Your task to perform on an android device: Open calendar and show me the second week of next month Image 0: 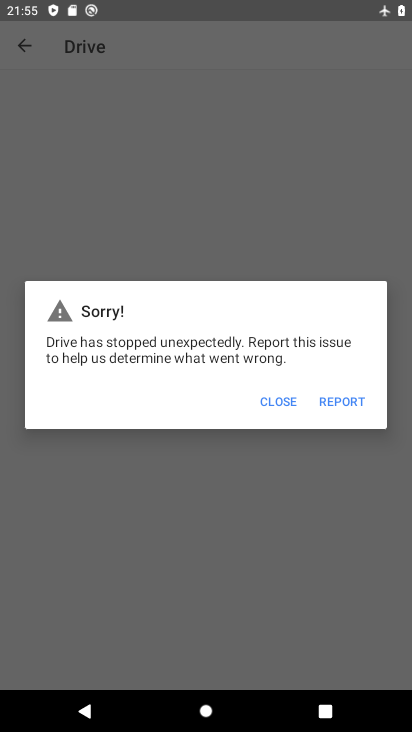
Step 0: press home button
Your task to perform on an android device: Open calendar and show me the second week of next month Image 1: 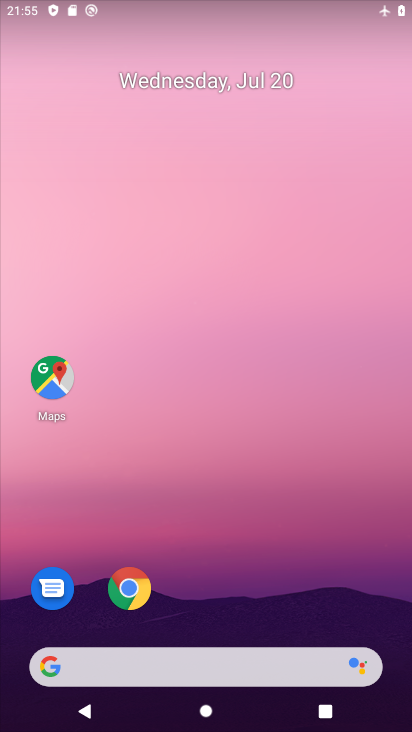
Step 1: drag from (377, 611) to (330, 182)
Your task to perform on an android device: Open calendar and show me the second week of next month Image 2: 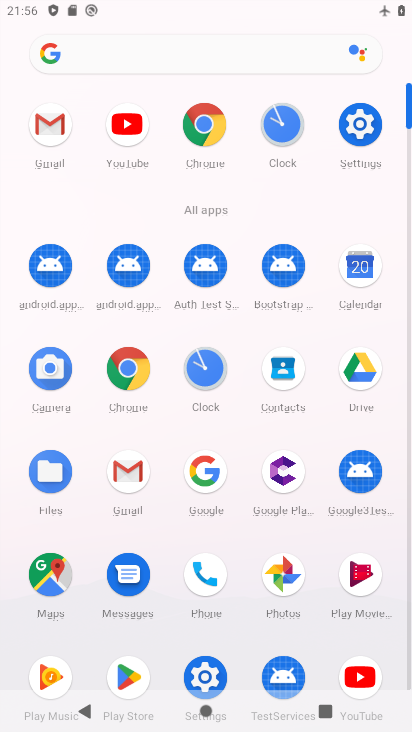
Step 2: click (359, 269)
Your task to perform on an android device: Open calendar and show me the second week of next month Image 3: 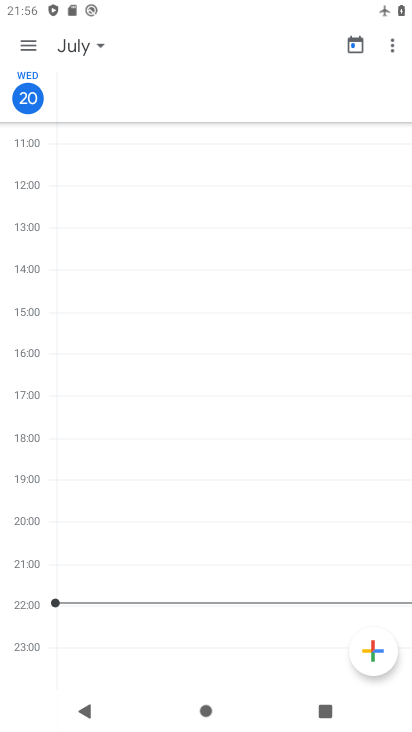
Step 3: click (28, 44)
Your task to perform on an android device: Open calendar and show me the second week of next month Image 4: 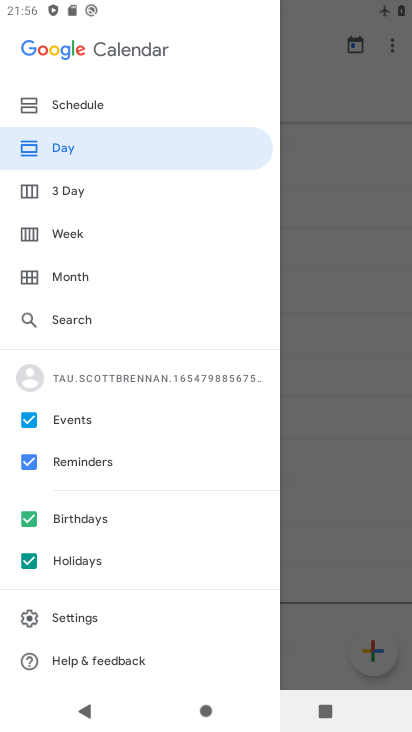
Step 4: click (64, 233)
Your task to perform on an android device: Open calendar and show me the second week of next month Image 5: 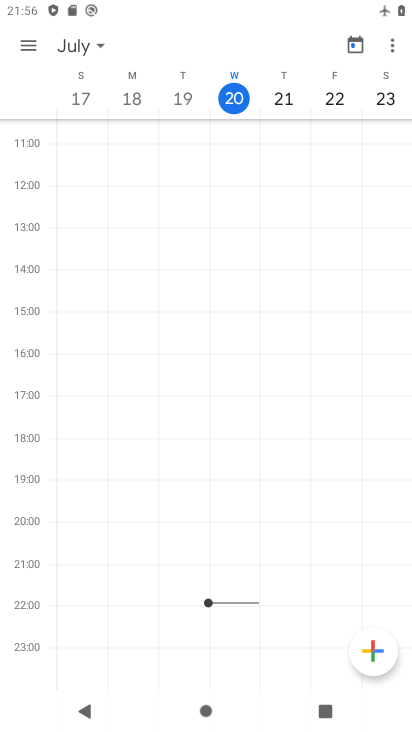
Step 5: click (97, 45)
Your task to perform on an android device: Open calendar and show me the second week of next month Image 6: 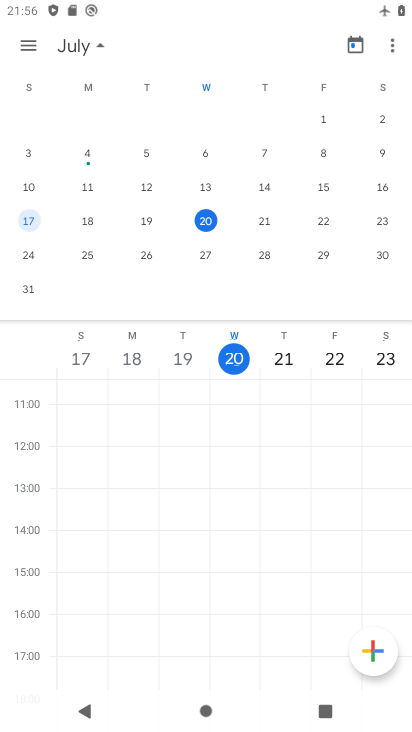
Step 6: drag from (383, 242) to (25, 214)
Your task to perform on an android device: Open calendar and show me the second week of next month Image 7: 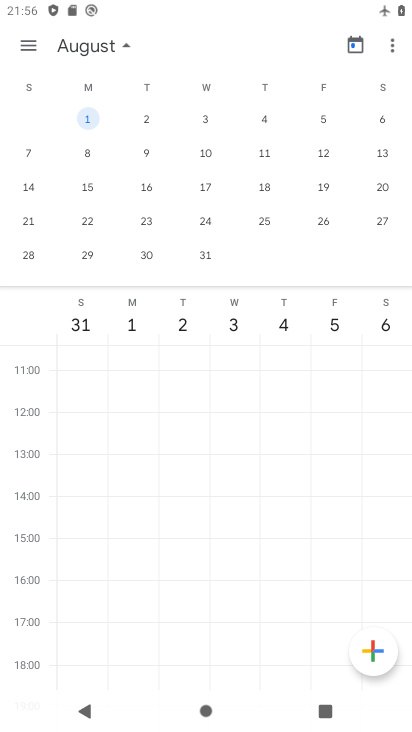
Step 7: click (26, 189)
Your task to perform on an android device: Open calendar and show me the second week of next month Image 8: 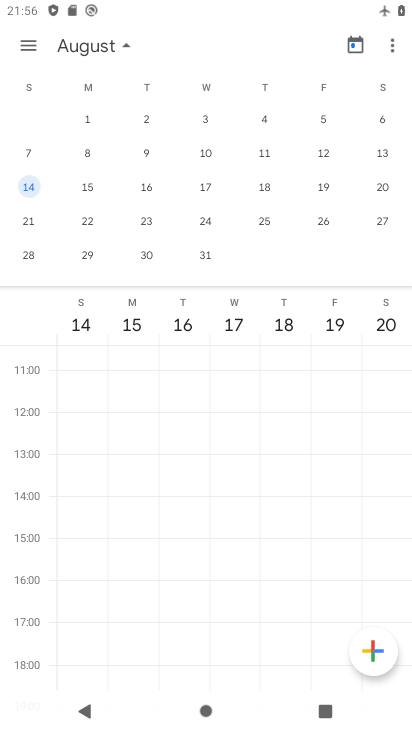
Step 8: drag from (177, 488) to (191, 232)
Your task to perform on an android device: Open calendar and show me the second week of next month Image 9: 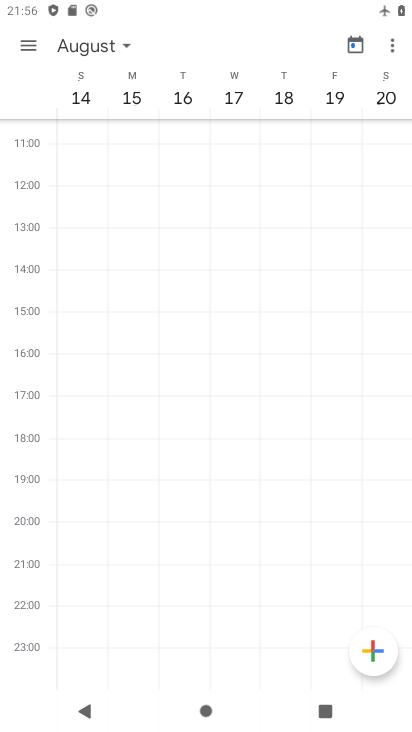
Step 9: click (199, 591)
Your task to perform on an android device: Open calendar and show me the second week of next month Image 10: 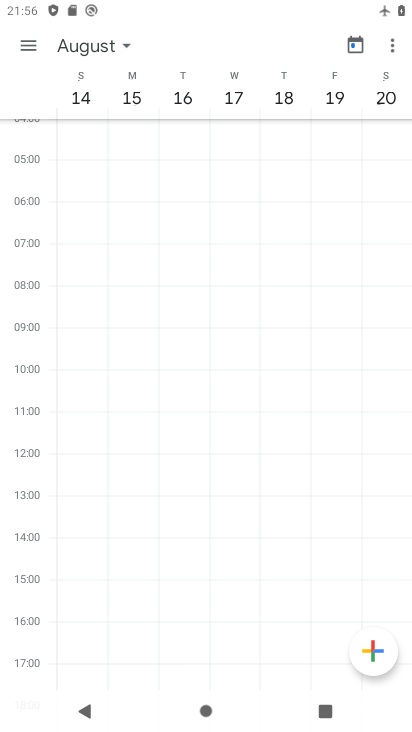
Step 10: task complete